Your task to perform on an android device: Open location settings Image 0: 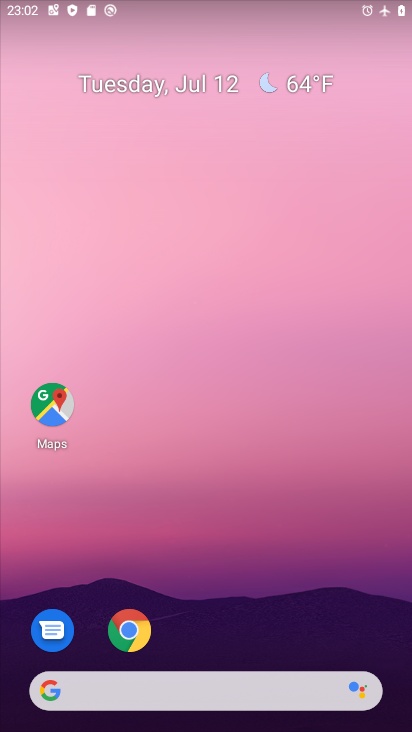
Step 0: drag from (204, 663) to (111, 57)
Your task to perform on an android device: Open location settings Image 1: 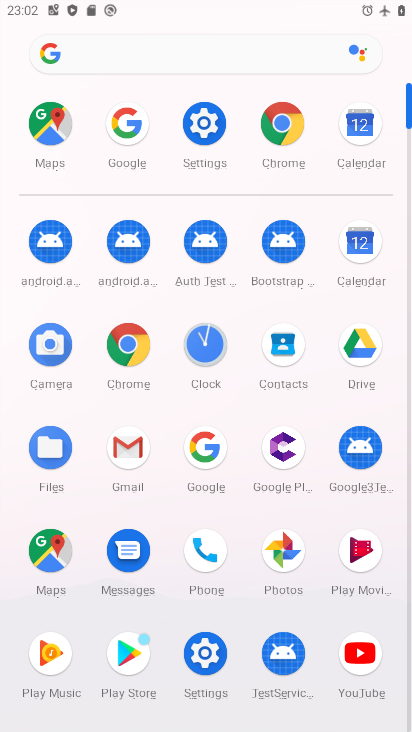
Step 1: click (207, 659)
Your task to perform on an android device: Open location settings Image 2: 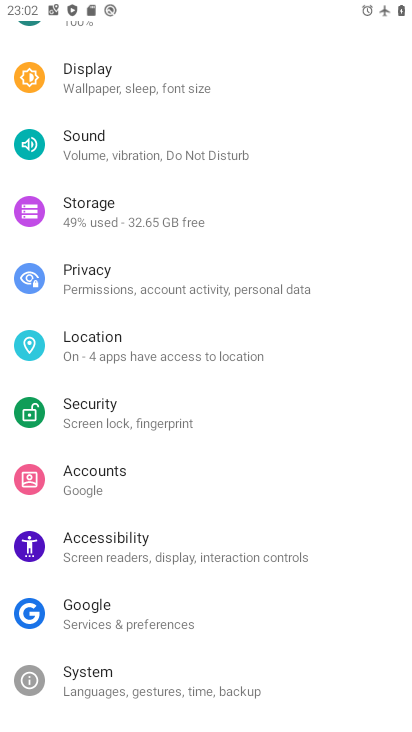
Step 2: click (141, 351)
Your task to perform on an android device: Open location settings Image 3: 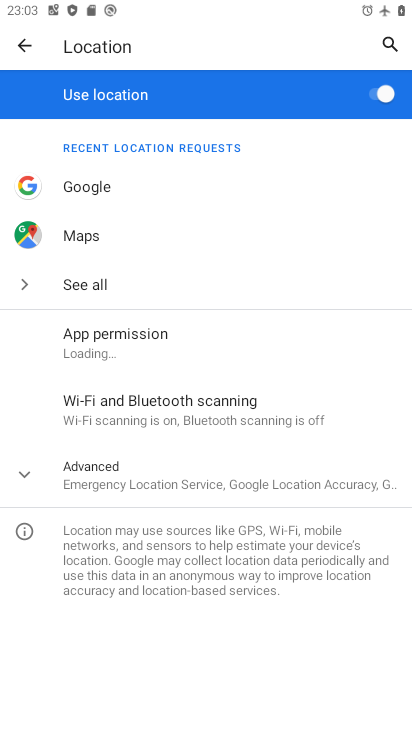
Step 3: task complete